Your task to perform on an android device: uninstall "Adobe Acrobat Reader" Image 0: 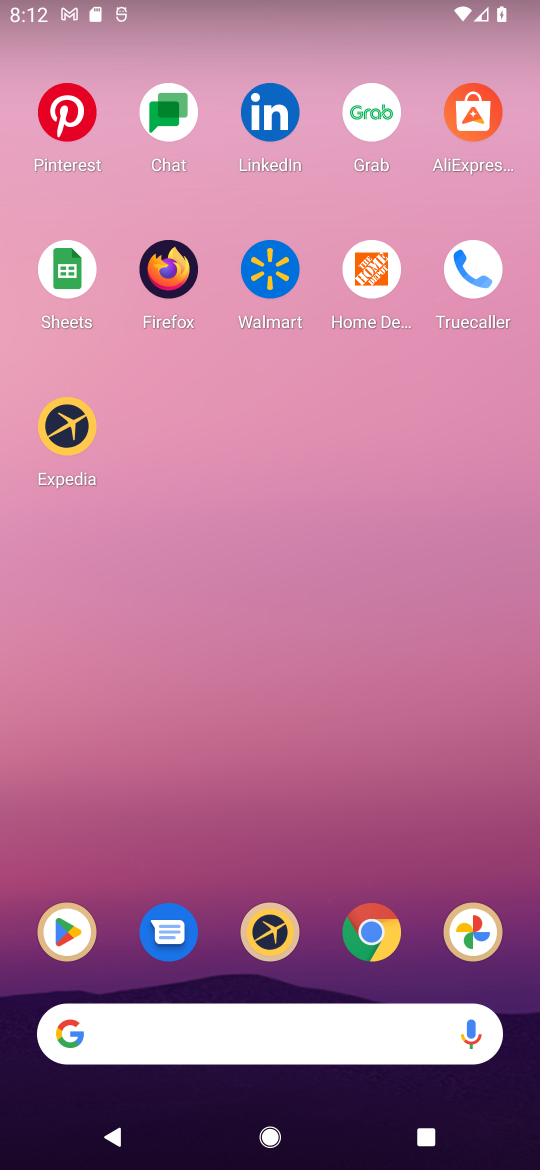
Step 0: click (62, 914)
Your task to perform on an android device: uninstall "Adobe Acrobat Reader" Image 1: 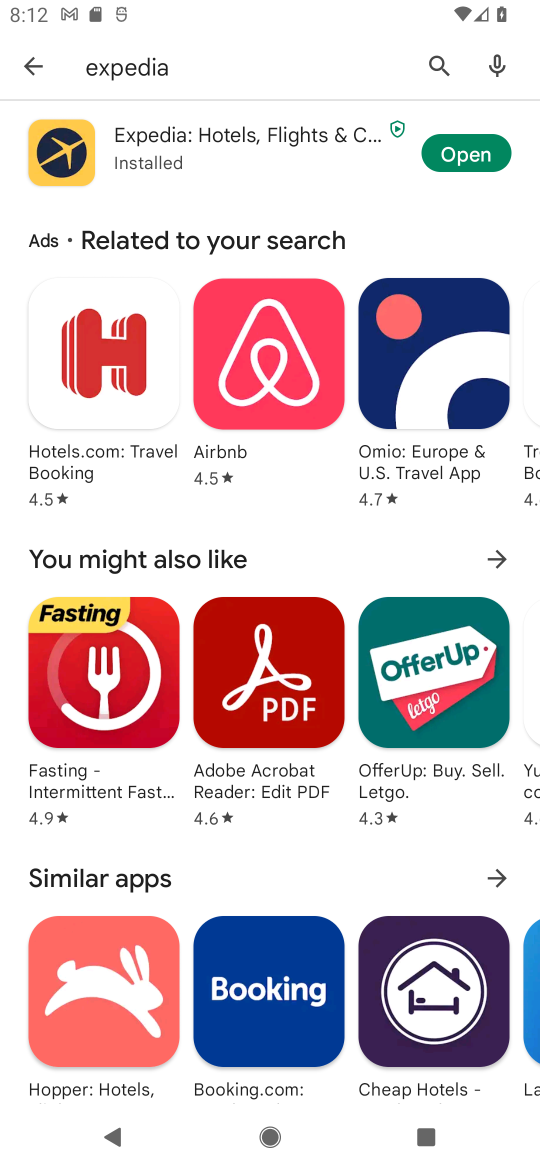
Step 1: click (190, 63)
Your task to perform on an android device: uninstall "Adobe Acrobat Reader" Image 2: 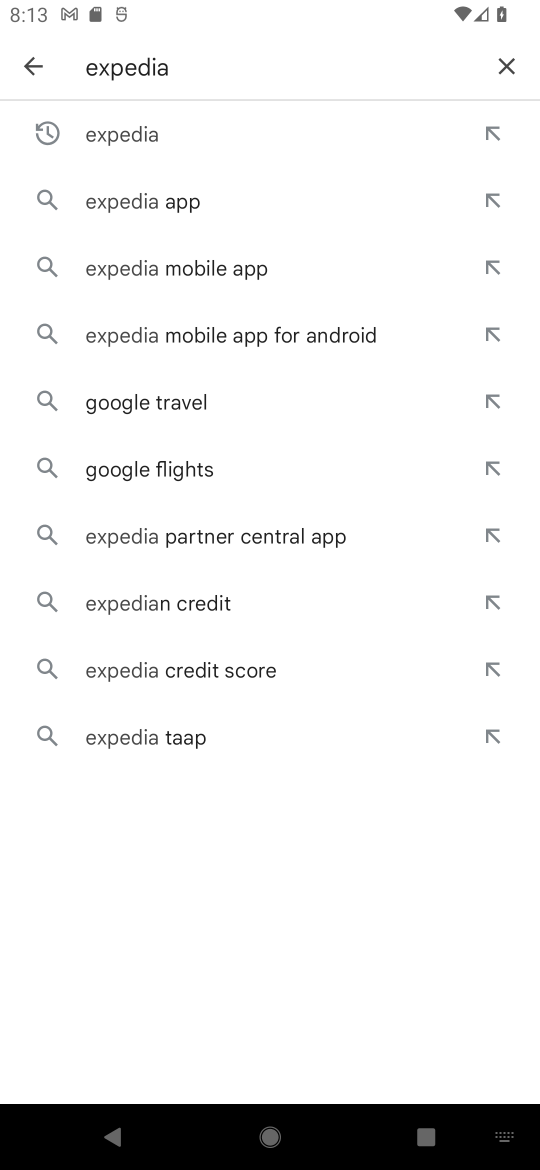
Step 2: click (502, 54)
Your task to perform on an android device: uninstall "Adobe Acrobat Reader" Image 3: 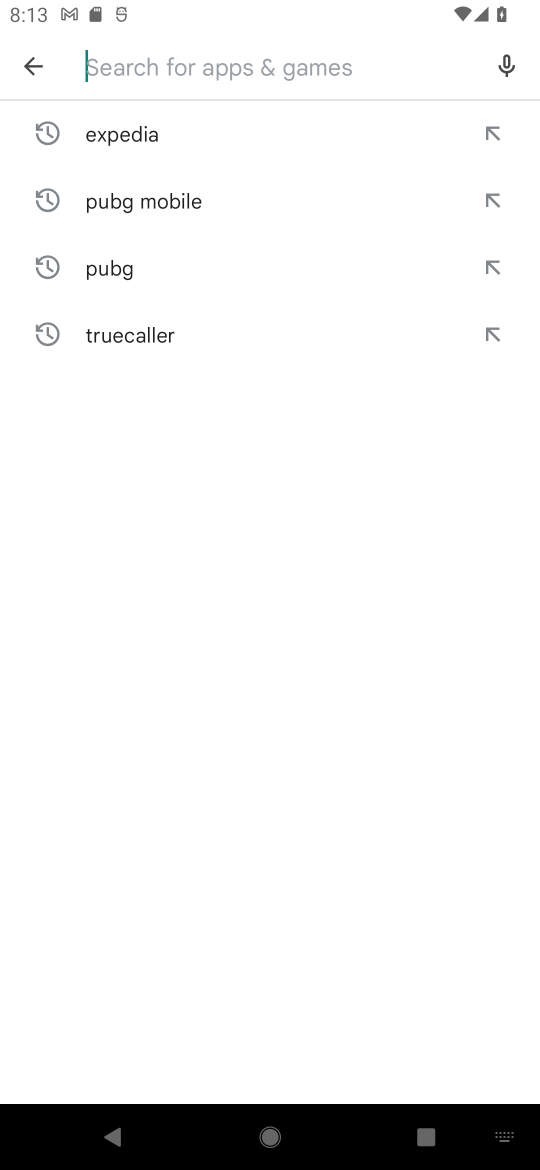
Step 3: type "Adobe Acrobat Reader"
Your task to perform on an android device: uninstall "Adobe Acrobat Reader" Image 4: 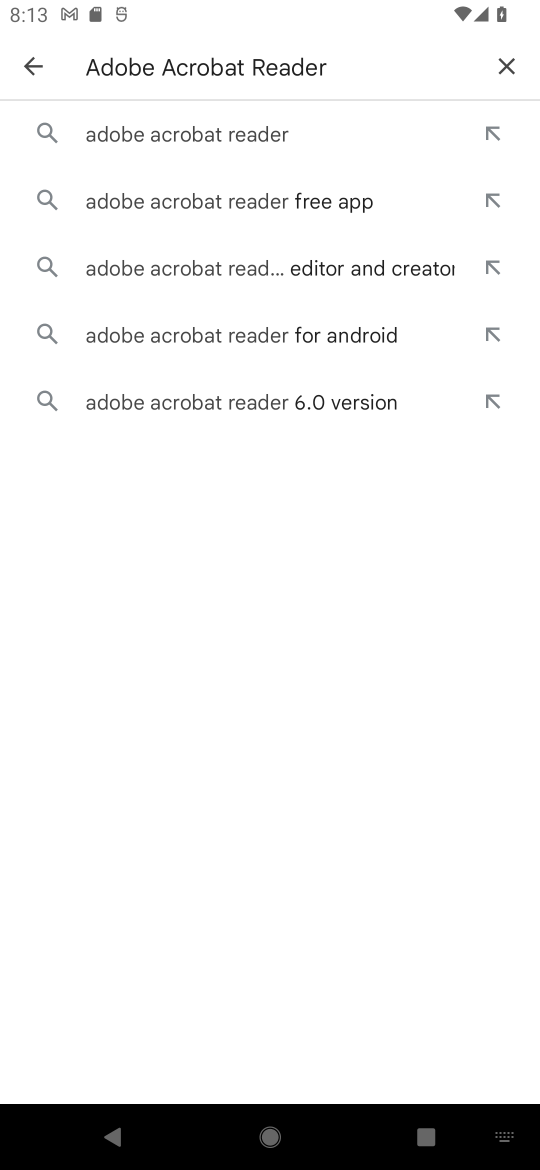
Step 4: click (174, 148)
Your task to perform on an android device: uninstall "Adobe Acrobat Reader" Image 5: 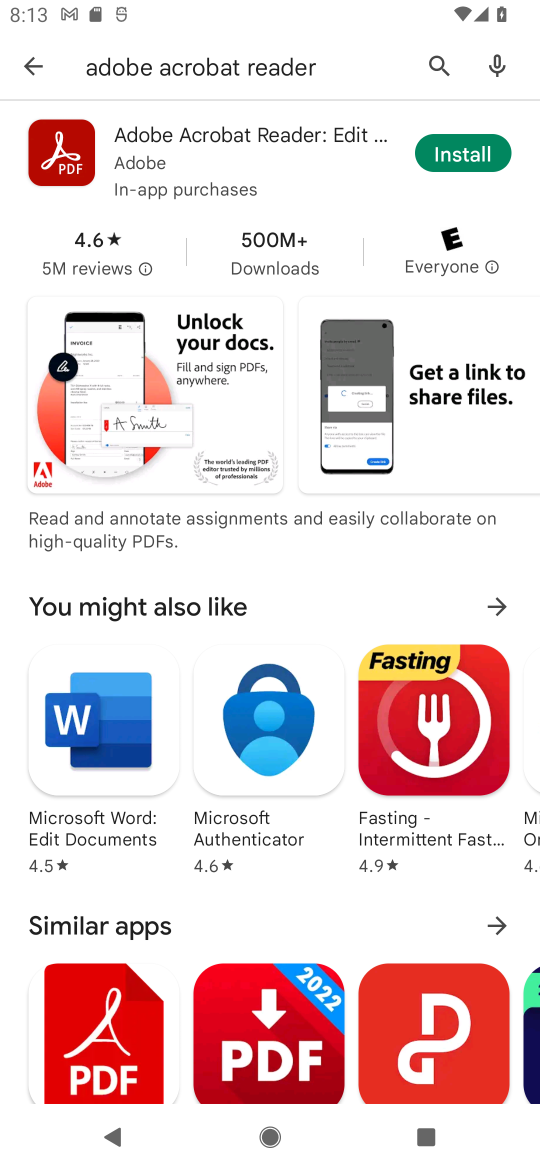
Step 5: task complete